Your task to perform on an android device: change the clock display to digital Image 0: 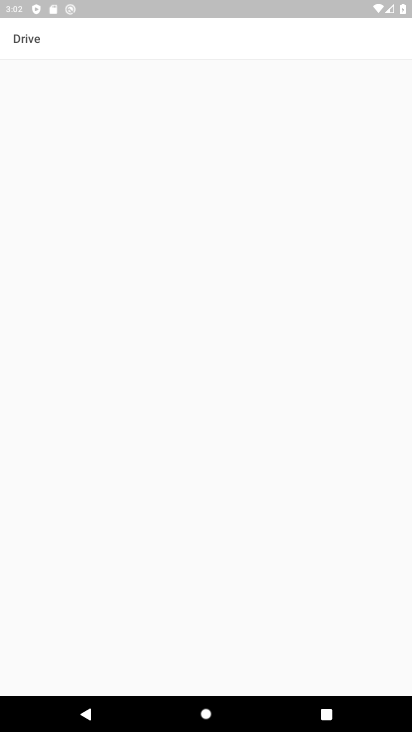
Step 0: press home button
Your task to perform on an android device: change the clock display to digital Image 1: 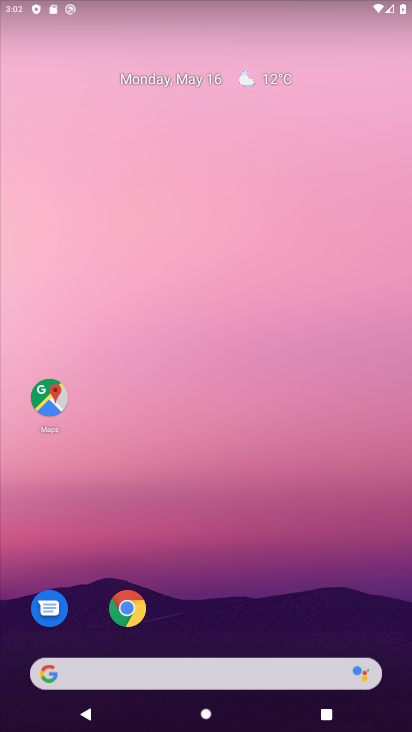
Step 1: drag from (182, 555) to (164, 346)
Your task to perform on an android device: change the clock display to digital Image 2: 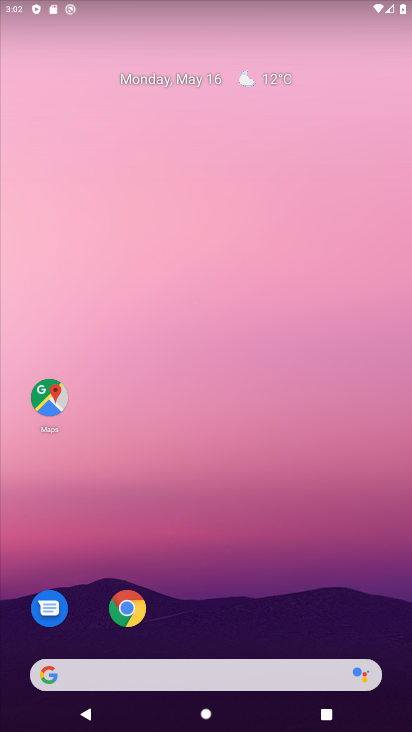
Step 2: drag from (194, 632) to (193, 310)
Your task to perform on an android device: change the clock display to digital Image 3: 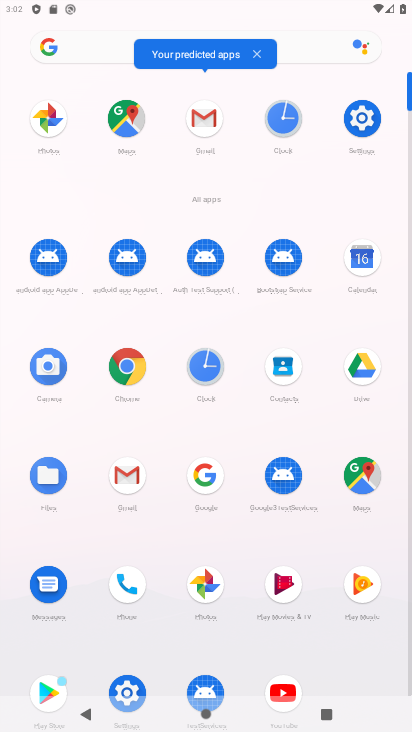
Step 3: click (194, 365)
Your task to perform on an android device: change the clock display to digital Image 4: 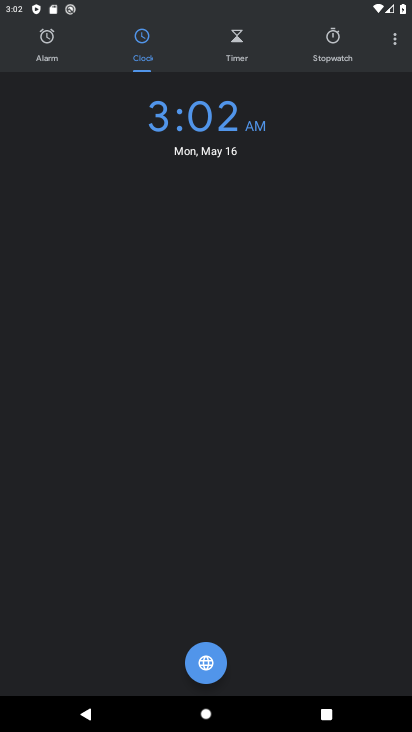
Step 4: click (391, 43)
Your task to perform on an android device: change the clock display to digital Image 5: 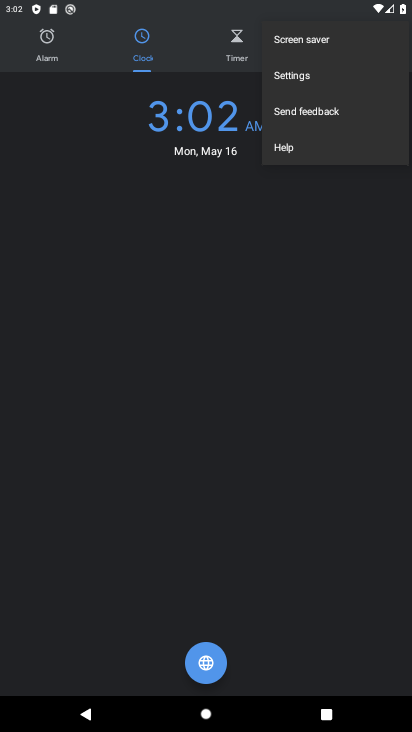
Step 5: click (313, 80)
Your task to perform on an android device: change the clock display to digital Image 6: 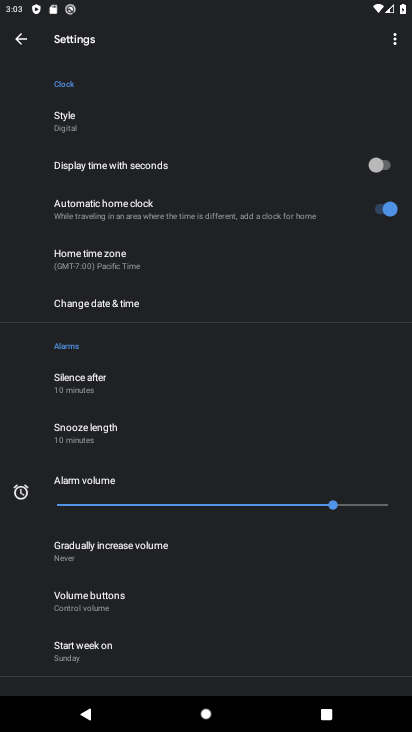
Step 6: click (96, 128)
Your task to perform on an android device: change the clock display to digital Image 7: 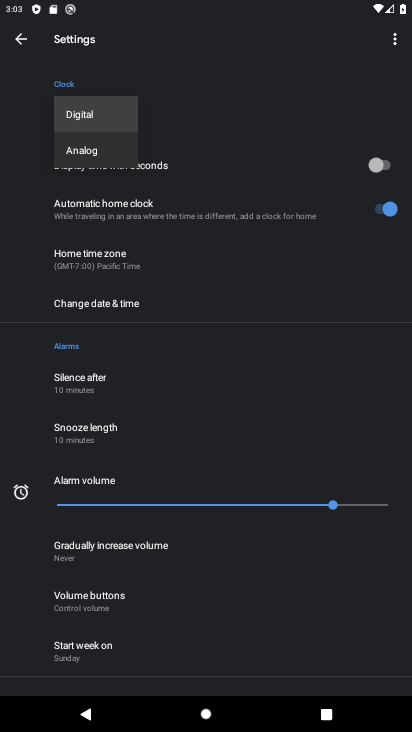
Step 7: task complete